Your task to perform on an android device: Is it going to rain tomorrow? Image 0: 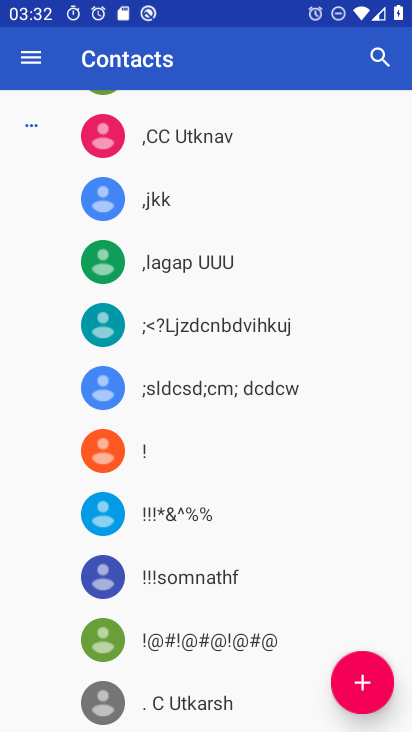
Step 0: press home button
Your task to perform on an android device: Is it going to rain tomorrow? Image 1: 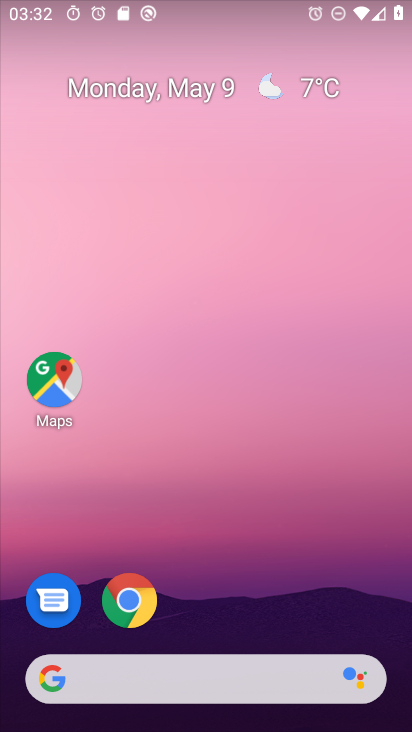
Step 1: click (305, 88)
Your task to perform on an android device: Is it going to rain tomorrow? Image 2: 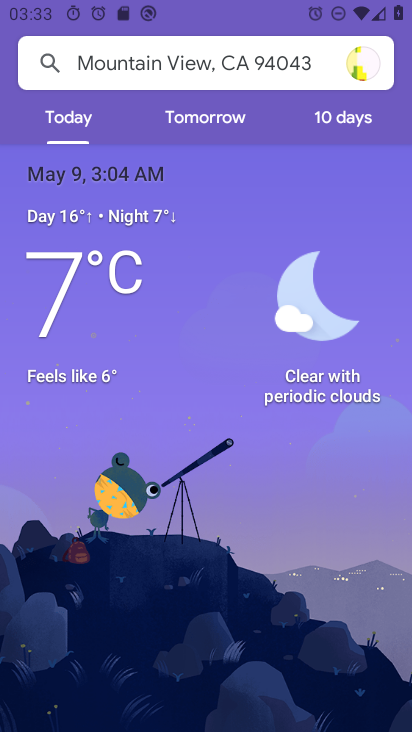
Step 2: drag from (228, 519) to (168, 47)
Your task to perform on an android device: Is it going to rain tomorrow? Image 3: 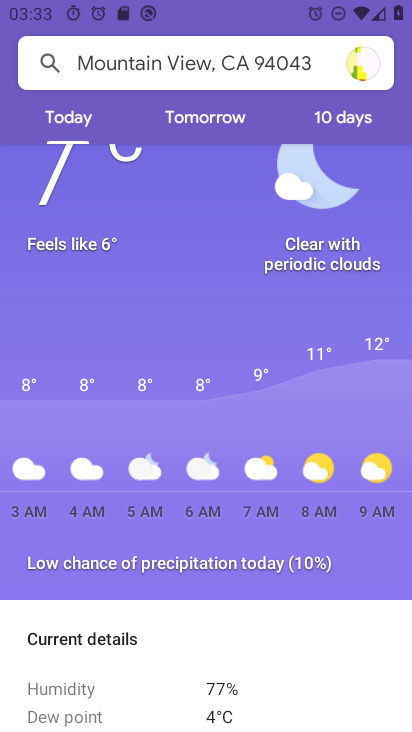
Step 3: click (190, 122)
Your task to perform on an android device: Is it going to rain tomorrow? Image 4: 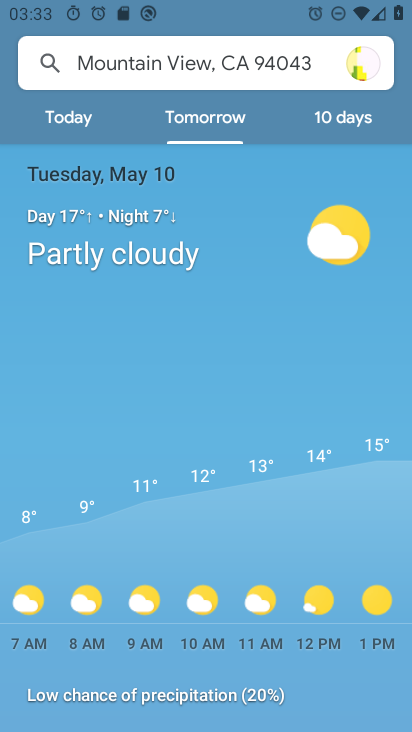
Step 4: task complete